Your task to perform on an android device: find which apps use the phone's location Image 0: 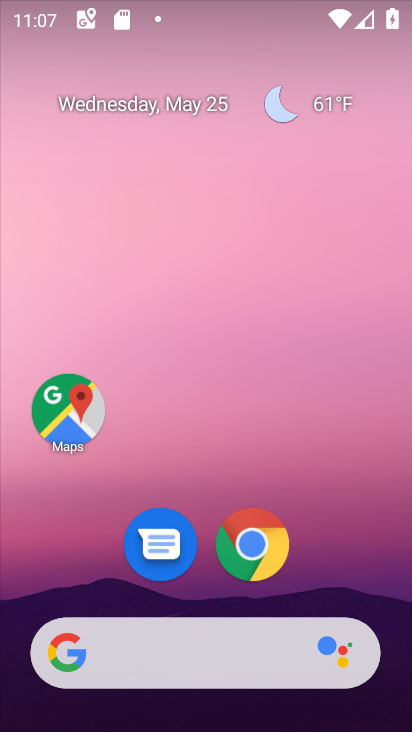
Step 0: drag from (320, 579) to (35, 65)
Your task to perform on an android device: find which apps use the phone's location Image 1: 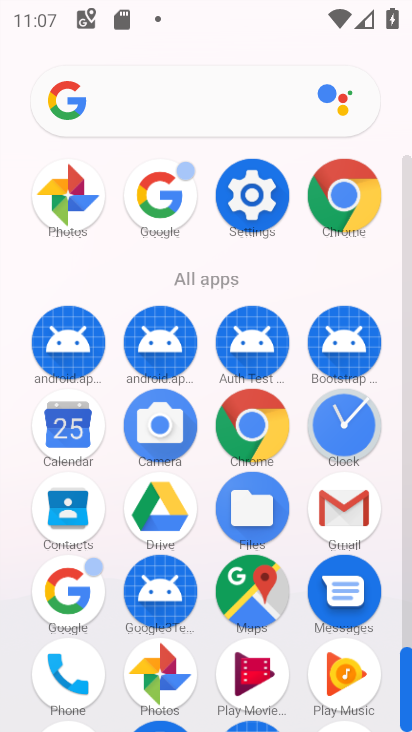
Step 1: click (255, 190)
Your task to perform on an android device: find which apps use the phone's location Image 2: 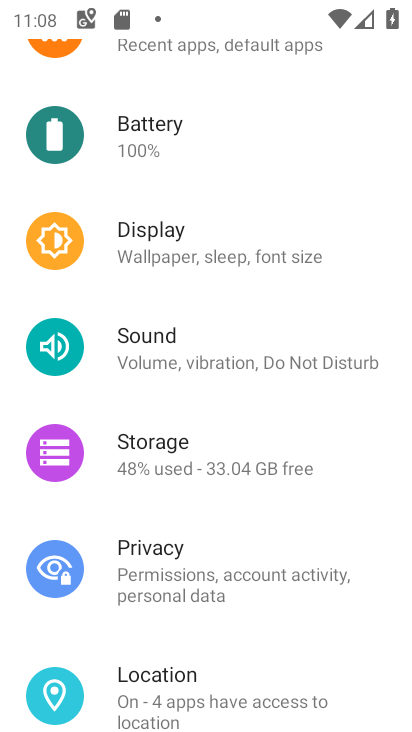
Step 2: click (132, 685)
Your task to perform on an android device: find which apps use the phone's location Image 3: 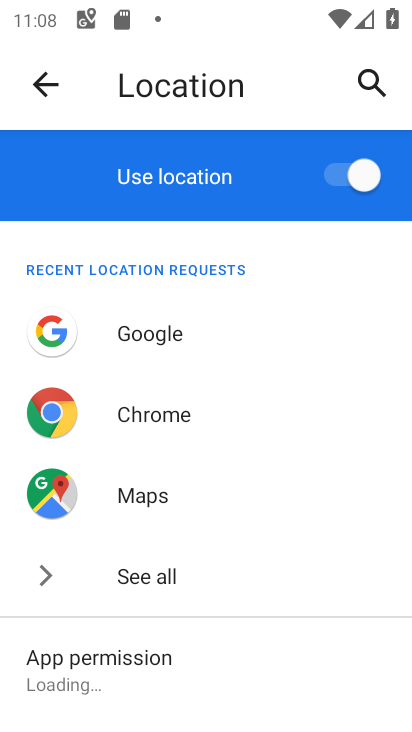
Step 3: click (132, 685)
Your task to perform on an android device: find which apps use the phone's location Image 4: 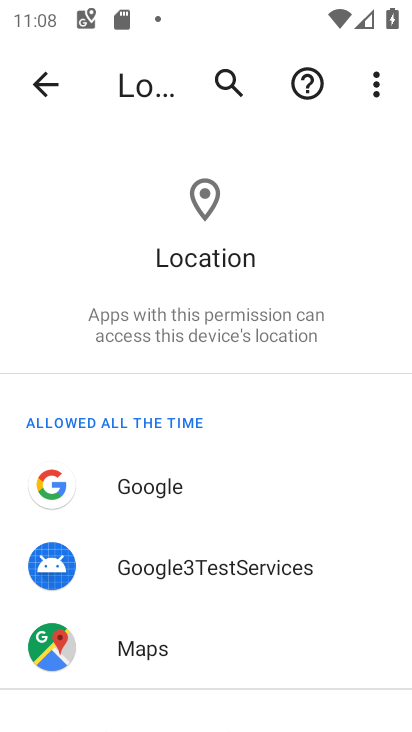
Step 4: task complete